Your task to perform on an android device: clear all cookies in the chrome app Image 0: 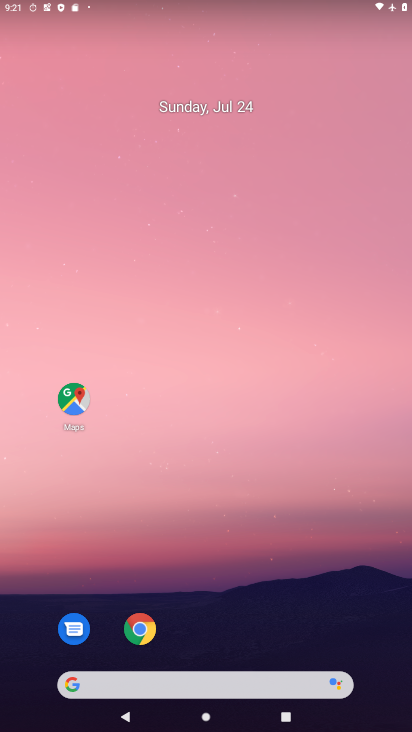
Step 0: drag from (189, 721) to (159, 142)
Your task to perform on an android device: clear all cookies in the chrome app Image 1: 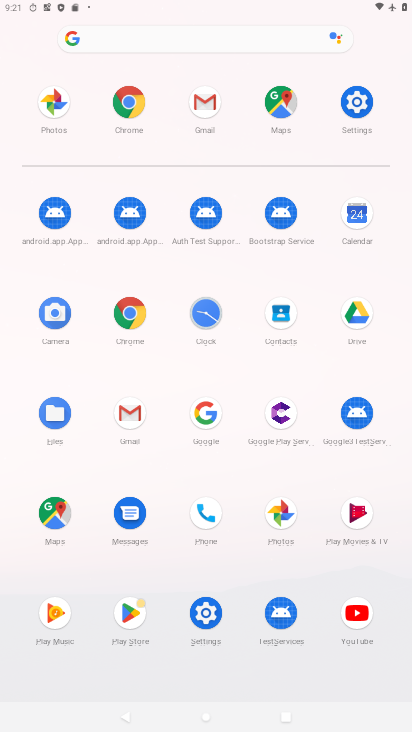
Step 1: click (132, 120)
Your task to perform on an android device: clear all cookies in the chrome app Image 2: 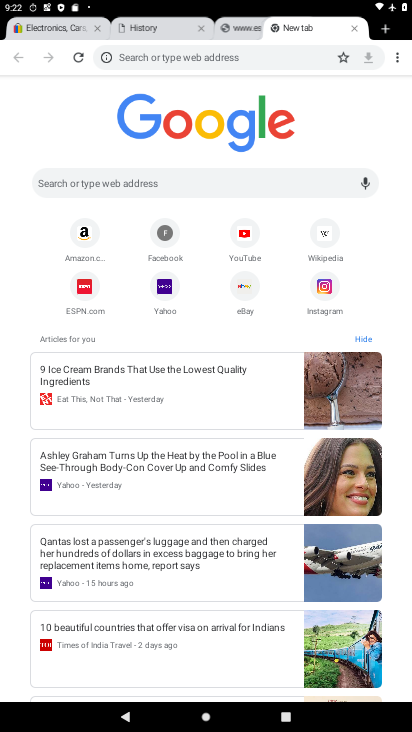
Step 2: click (404, 56)
Your task to perform on an android device: clear all cookies in the chrome app Image 3: 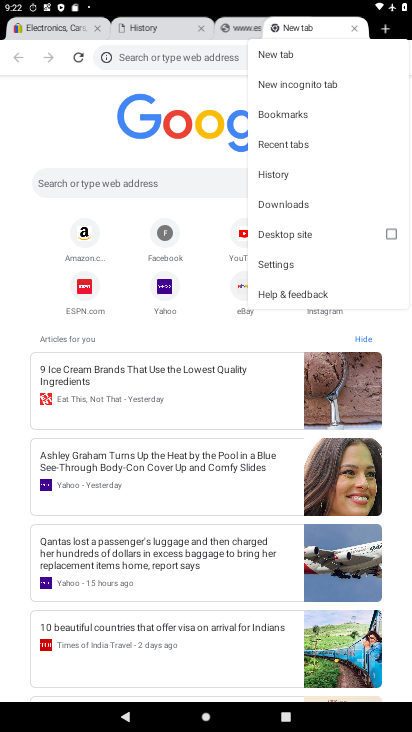
Step 3: click (283, 177)
Your task to perform on an android device: clear all cookies in the chrome app Image 4: 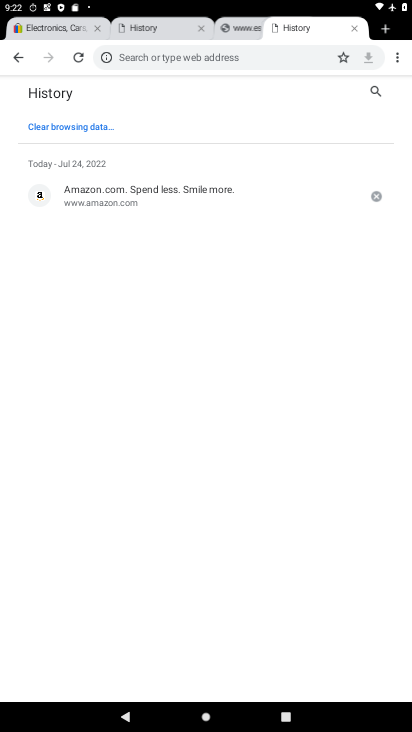
Step 4: click (64, 138)
Your task to perform on an android device: clear all cookies in the chrome app Image 5: 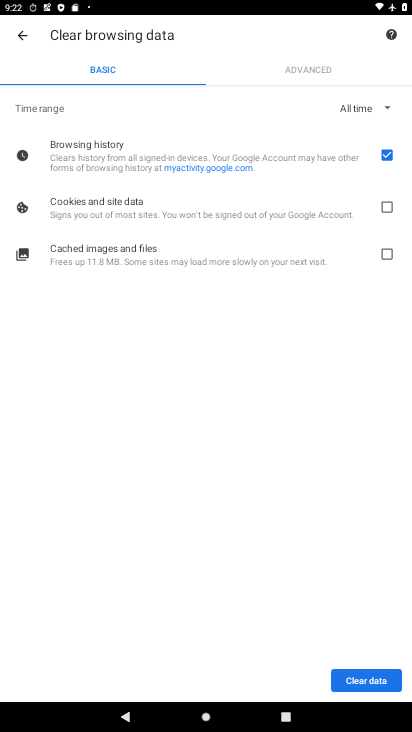
Step 5: click (388, 158)
Your task to perform on an android device: clear all cookies in the chrome app Image 6: 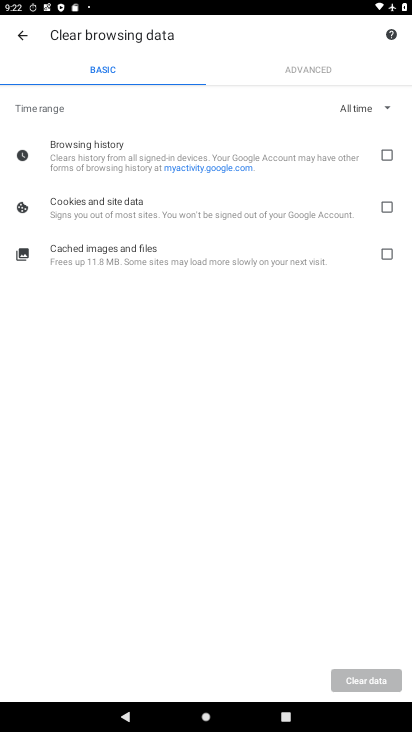
Step 6: click (388, 200)
Your task to perform on an android device: clear all cookies in the chrome app Image 7: 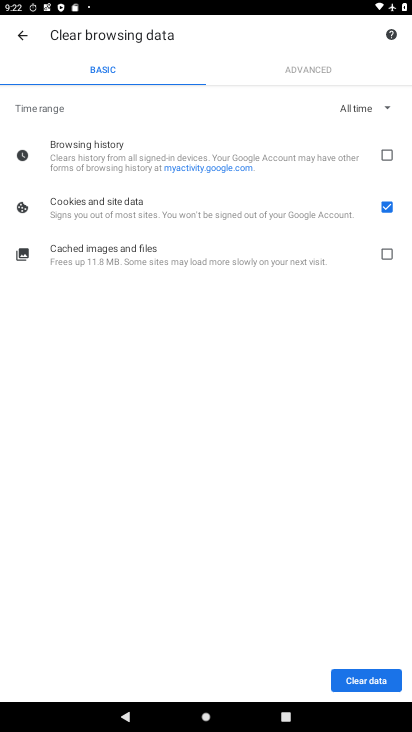
Step 7: click (374, 670)
Your task to perform on an android device: clear all cookies in the chrome app Image 8: 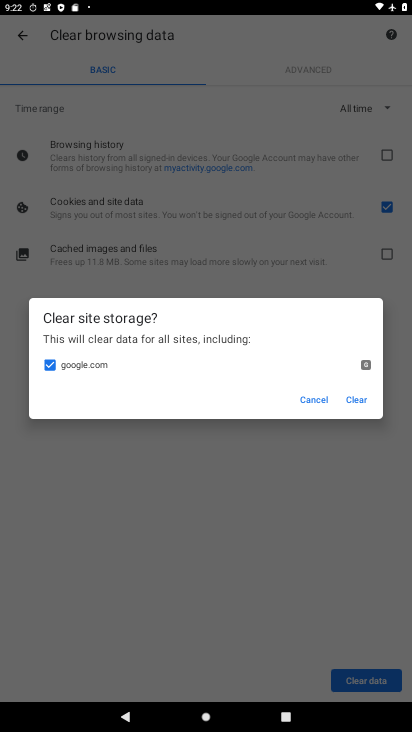
Step 8: click (348, 406)
Your task to perform on an android device: clear all cookies in the chrome app Image 9: 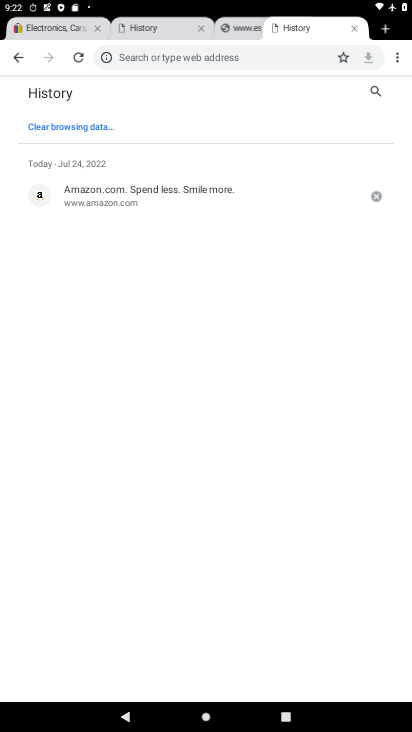
Step 9: task complete